Your task to perform on an android device: delete browsing data in the chrome app Image 0: 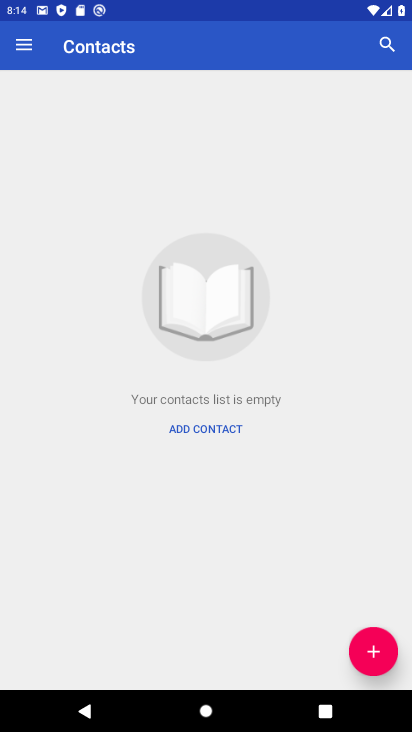
Step 0: press home button
Your task to perform on an android device: delete browsing data in the chrome app Image 1: 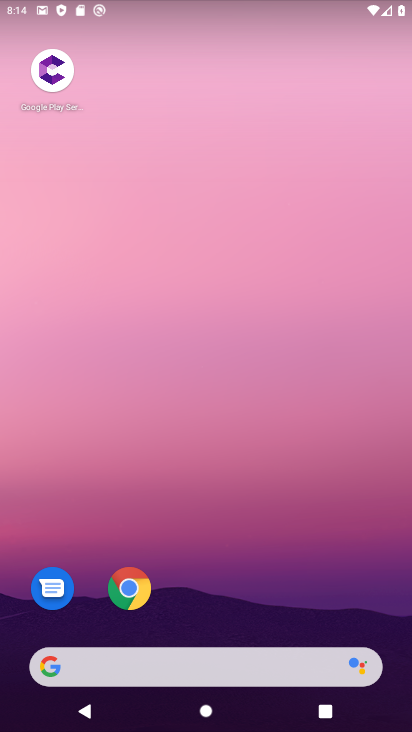
Step 1: click (131, 585)
Your task to perform on an android device: delete browsing data in the chrome app Image 2: 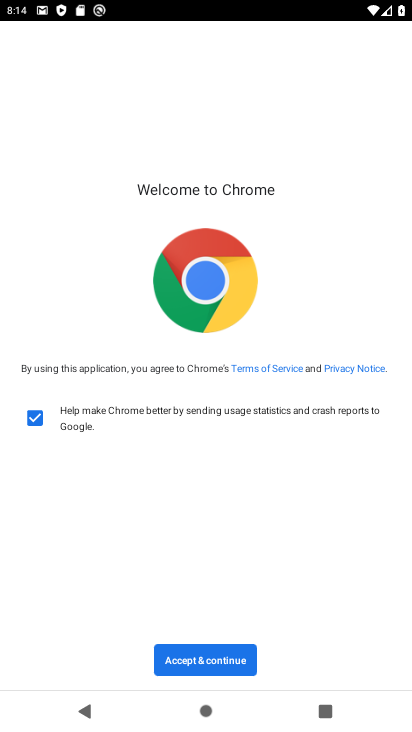
Step 2: click (205, 665)
Your task to perform on an android device: delete browsing data in the chrome app Image 3: 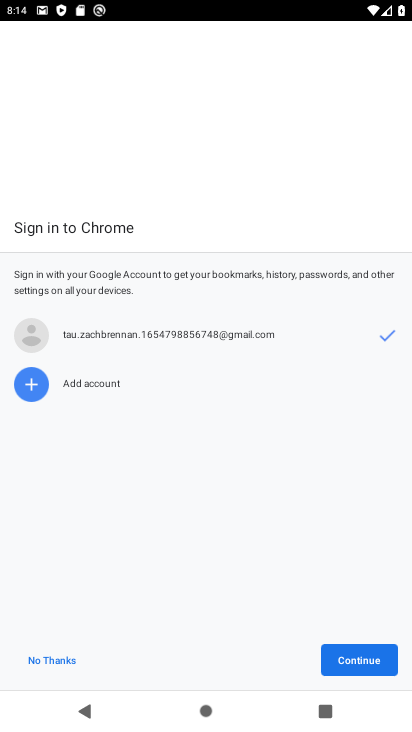
Step 3: click (360, 658)
Your task to perform on an android device: delete browsing data in the chrome app Image 4: 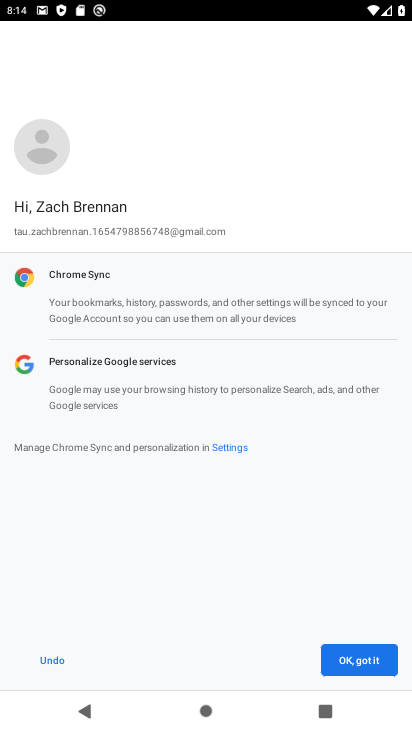
Step 4: click (354, 662)
Your task to perform on an android device: delete browsing data in the chrome app Image 5: 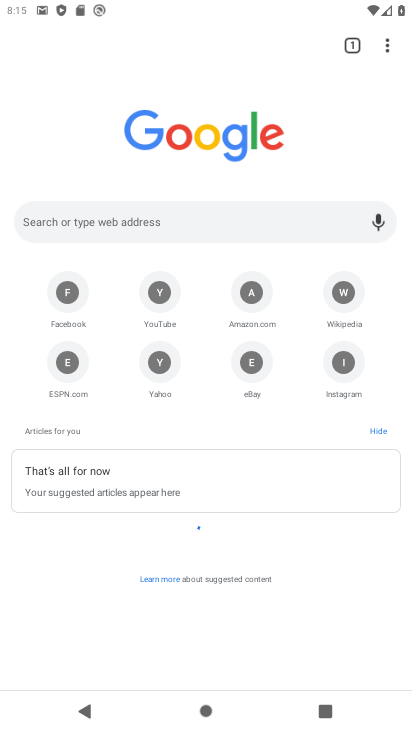
Step 5: click (385, 41)
Your task to perform on an android device: delete browsing data in the chrome app Image 6: 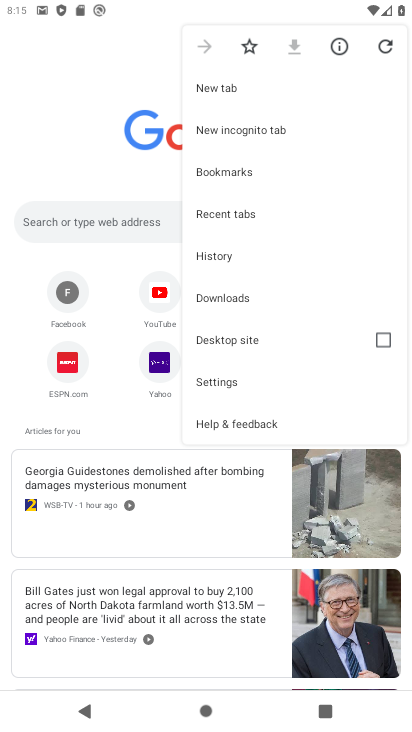
Step 6: click (226, 250)
Your task to perform on an android device: delete browsing data in the chrome app Image 7: 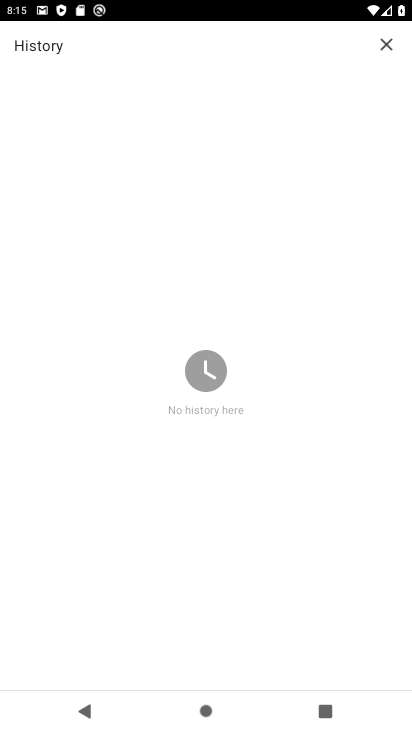
Step 7: task complete